Your task to perform on an android device: Open Chrome and go to the settings page Image 0: 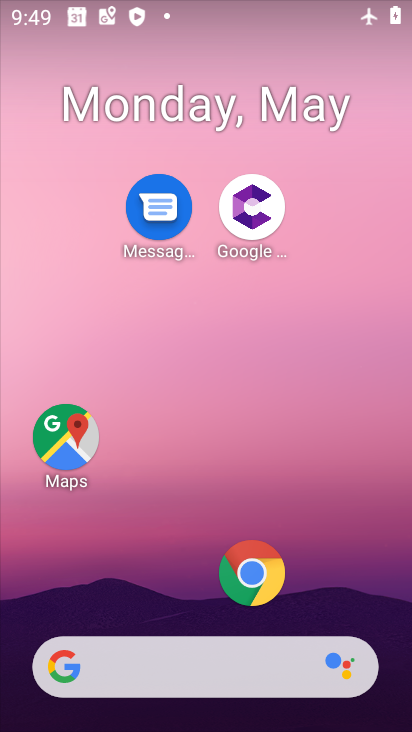
Step 0: drag from (185, 701) to (275, 194)
Your task to perform on an android device: Open Chrome and go to the settings page Image 1: 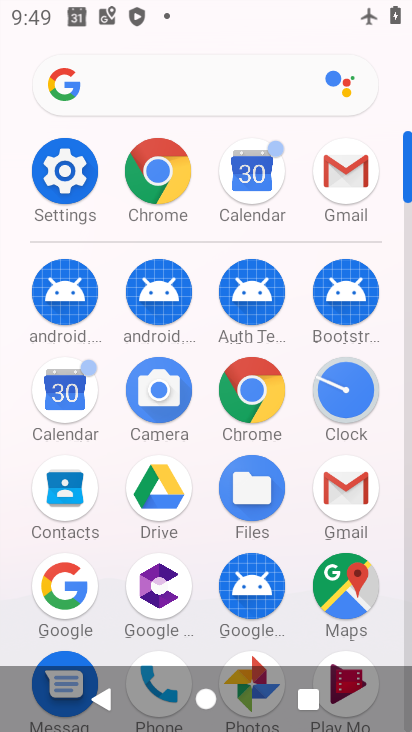
Step 1: click (248, 416)
Your task to perform on an android device: Open Chrome and go to the settings page Image 2: 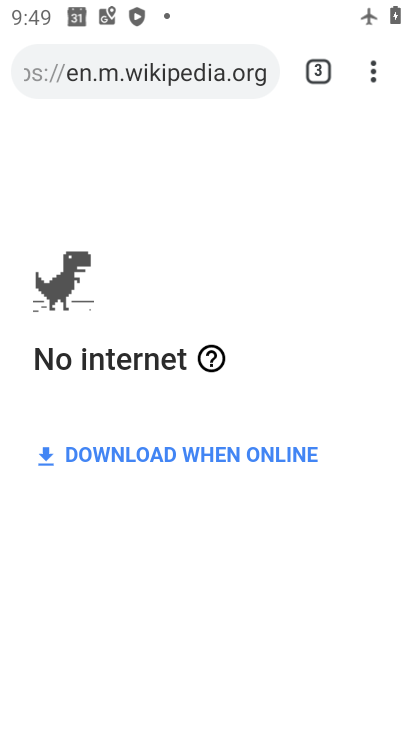
Step 2: click (369, 70)
Your task to perform on an android device: Open Chrome and go to the settings page Image 3: 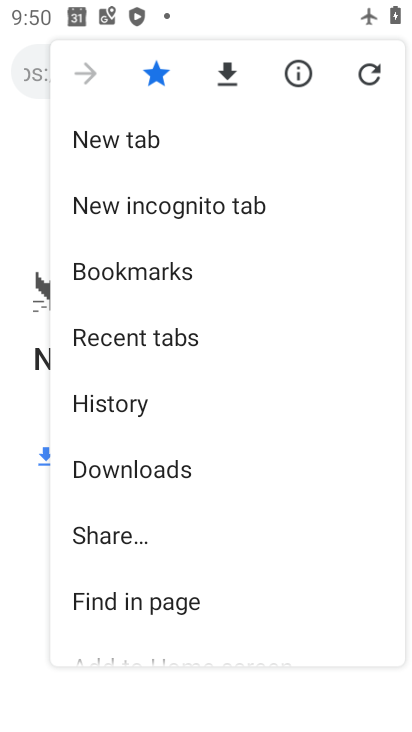
Step 3: drag from (183, 554) to (267, 100)
Your task to perform on an android device: Open Chrome and go to the settings page Image 4: 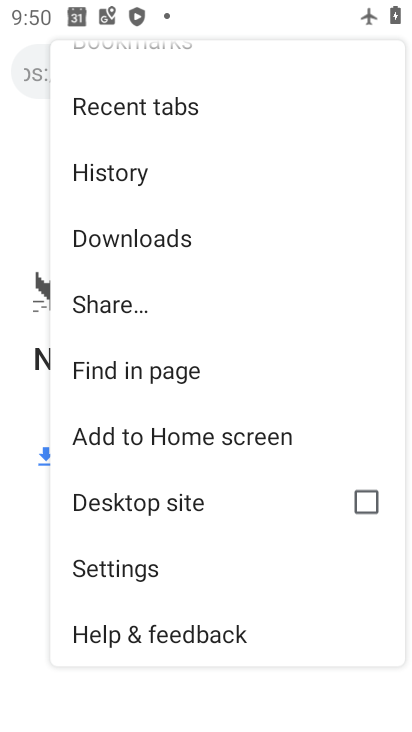
Step 4: click (157, 564)
Your task to perform on an android device: Open Chrome and go to the settings page Image 5: 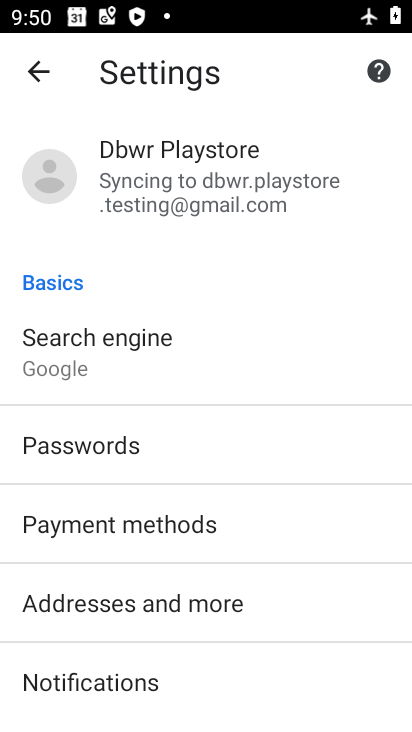
Step 5: task complete